Your task to perform on an android device: Go to location settings Image 0: 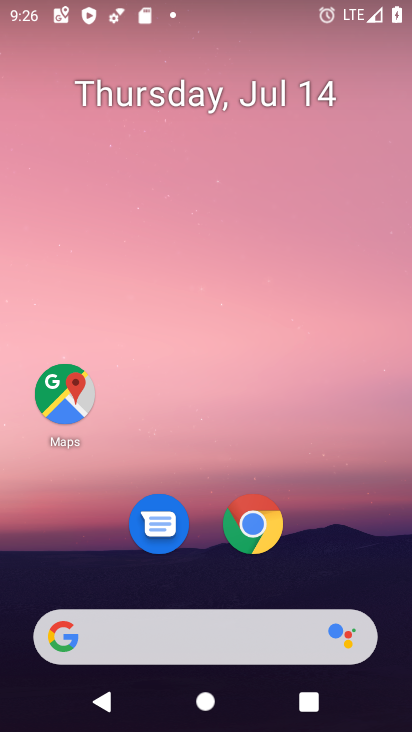
Step 0: drag from (332, 427) to (284, 23)
Your task to perform on an android device: Go to location settings Image 1: 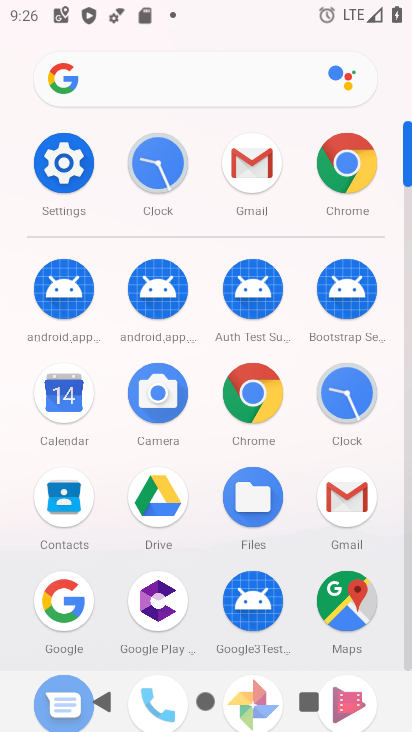
Step 1: click (71, 159)
Your task to perform on an android device: Go to location settings Image 2: 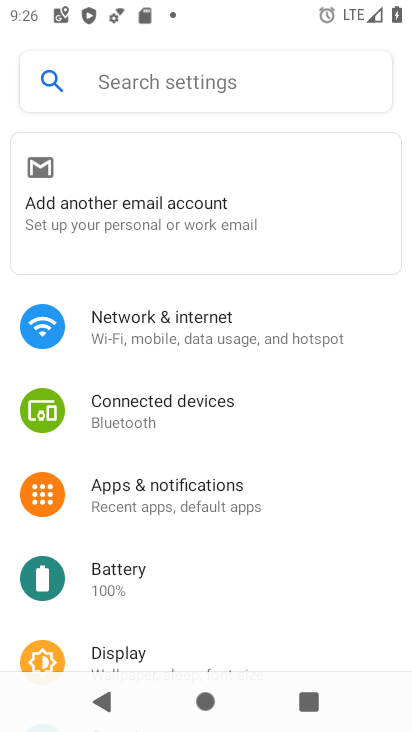
Step 2: drag from (222, 566) to (198, 260)
Your task to perform on an android device: Go to location settings Image 3: 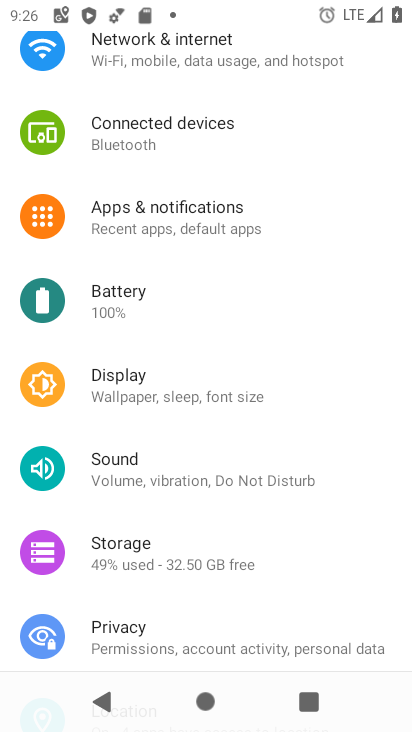
Step 3: drag from (235, 486) to (212, 146)
Your task to perform on an android device: Go to location settings Image 4: 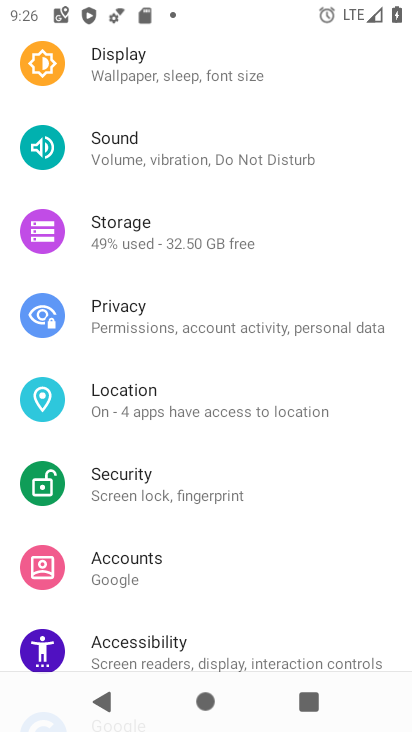
Step 4: click (231, 401)
Your task to perform on an android device: Go to location settings Image 5: 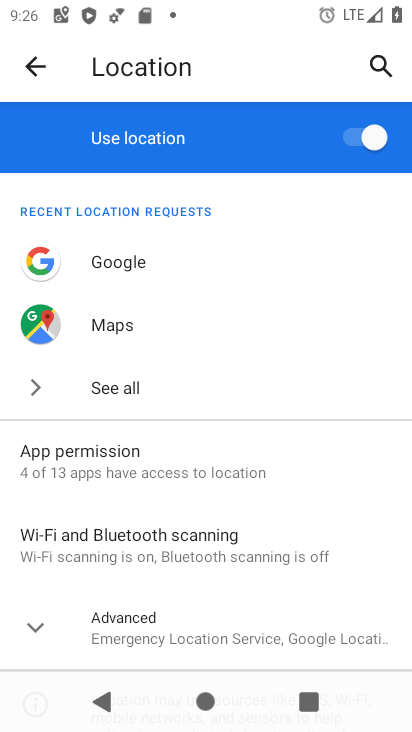
Step 5: task complete